Your task to perform on an android device: Go to Android settings Image 0: 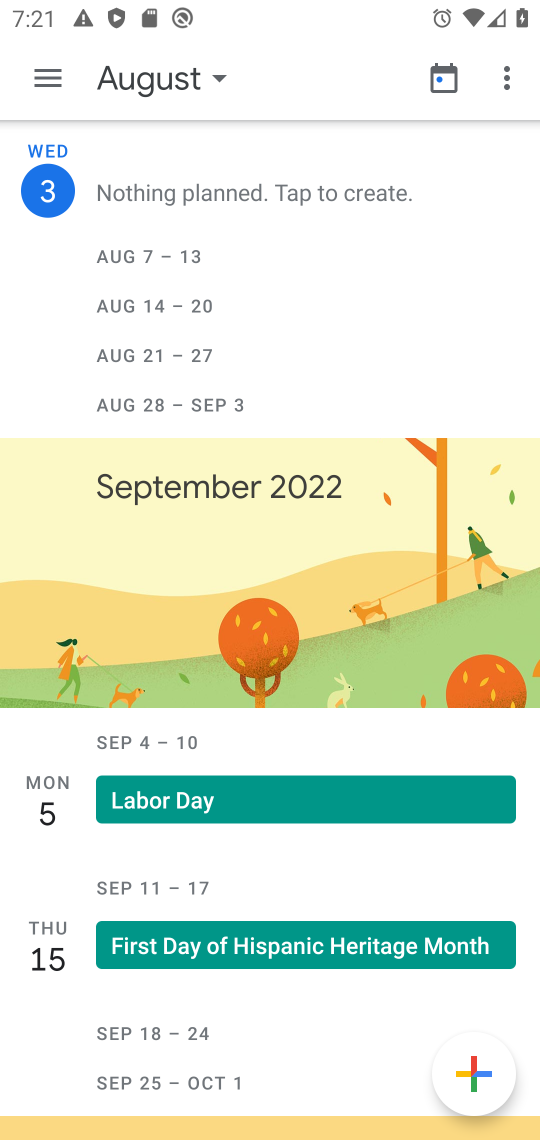
Step 0: press home button
Your task to perform on an android device: Go to Android settings Image 1: 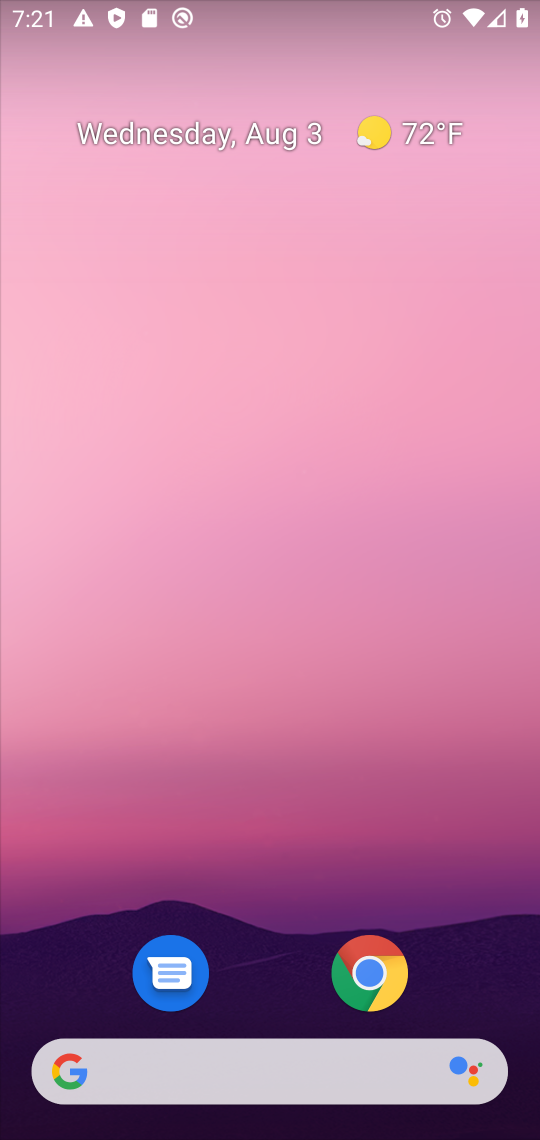
Step 1: drag from (221, 872) to (178, 337)
Your task to perform on an android device: Go to Android settings Image 2: 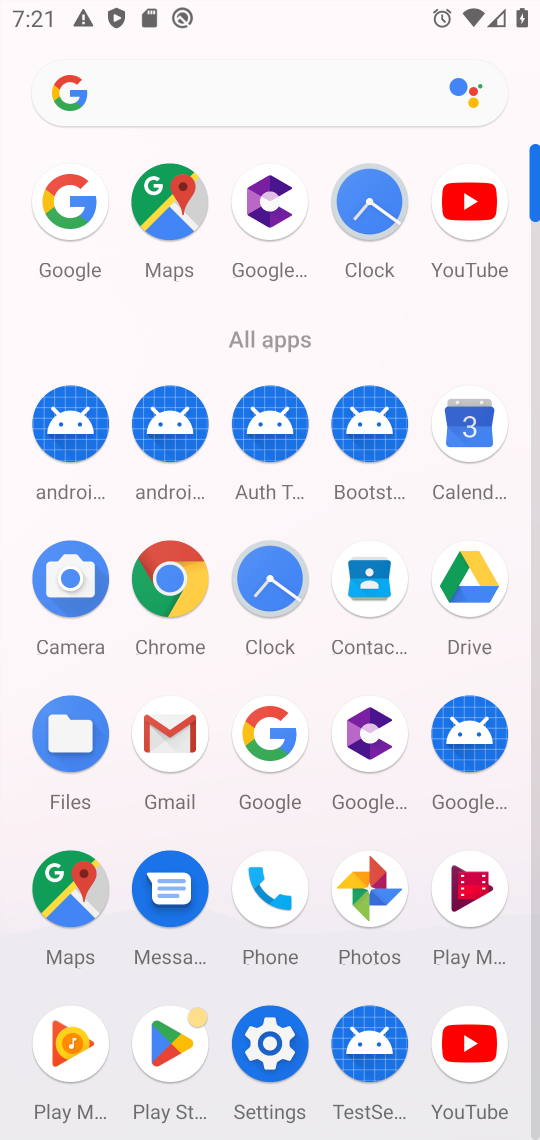
Step 2: click (262, 1051)
Your task to perform on an android device: Go to Android settings Image 3: 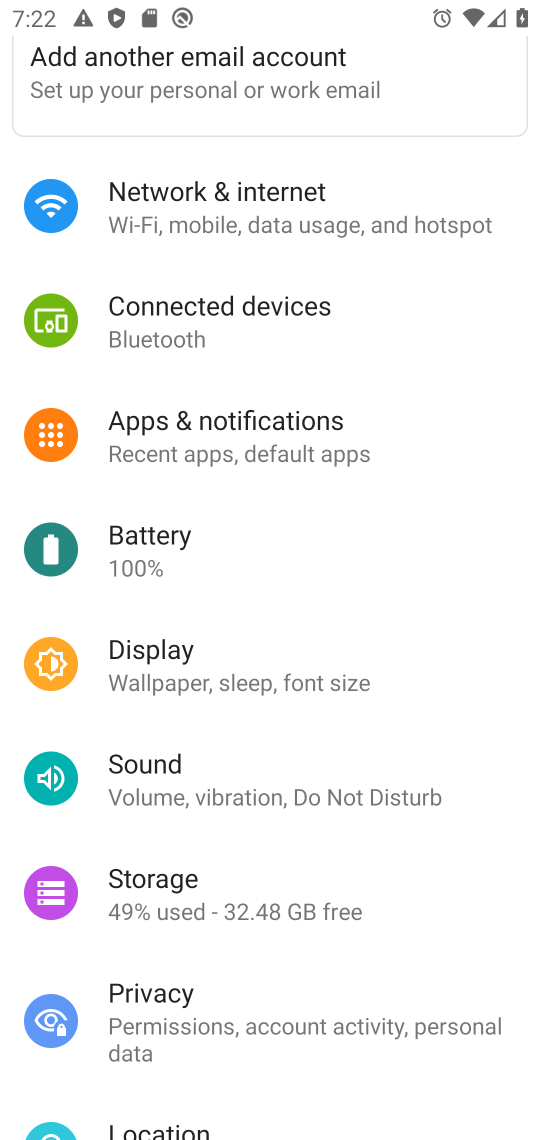
Step 3: drag from (207, 811) to (181, 407)
Your task to perform on an android device: Go to Android settings Image 4: 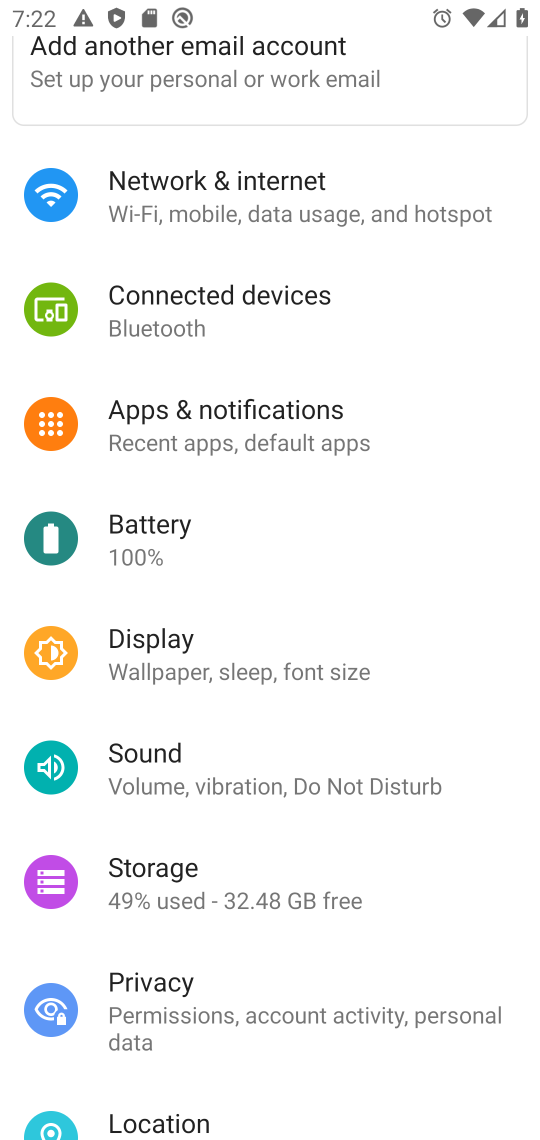
Step 4: drag from (228, 1011) to (199, 578)
Your task to perform on an android device: Go to Android settings Image 5: 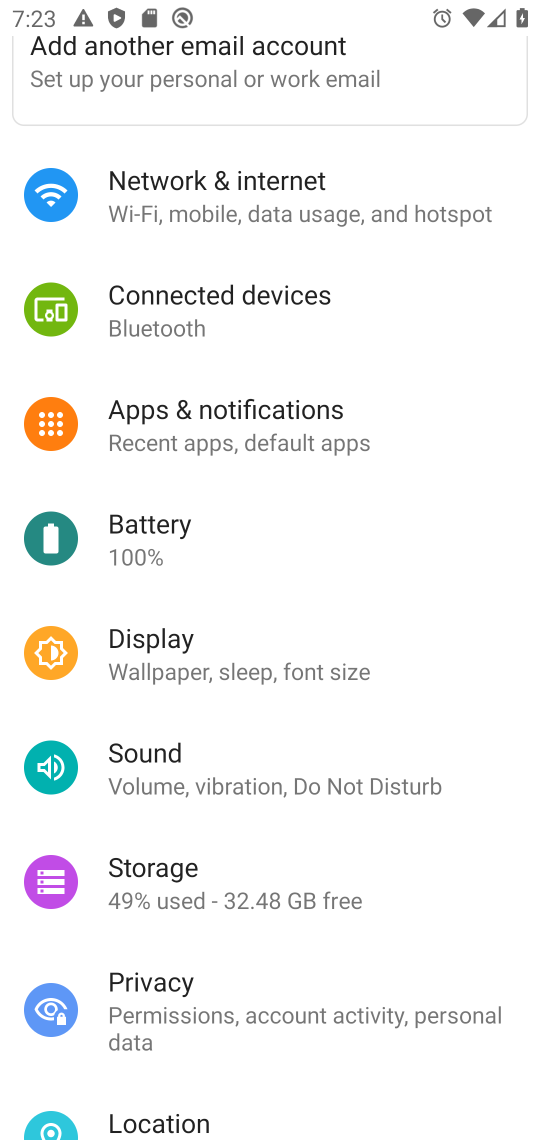
Step 5: drag from (200, 930) to (168, 184)
Your task to perform on an android device: Go to Android settings Image 6: 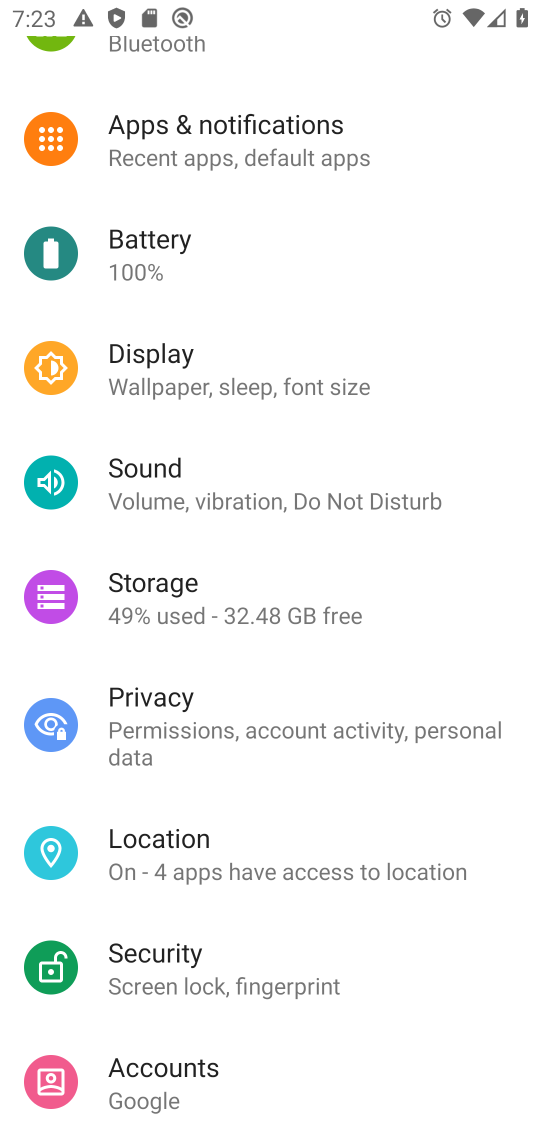
Step 6: drag from (170, 300) to (84, 2)
Your task to perform on an android device: Go to Android settings Image 7: 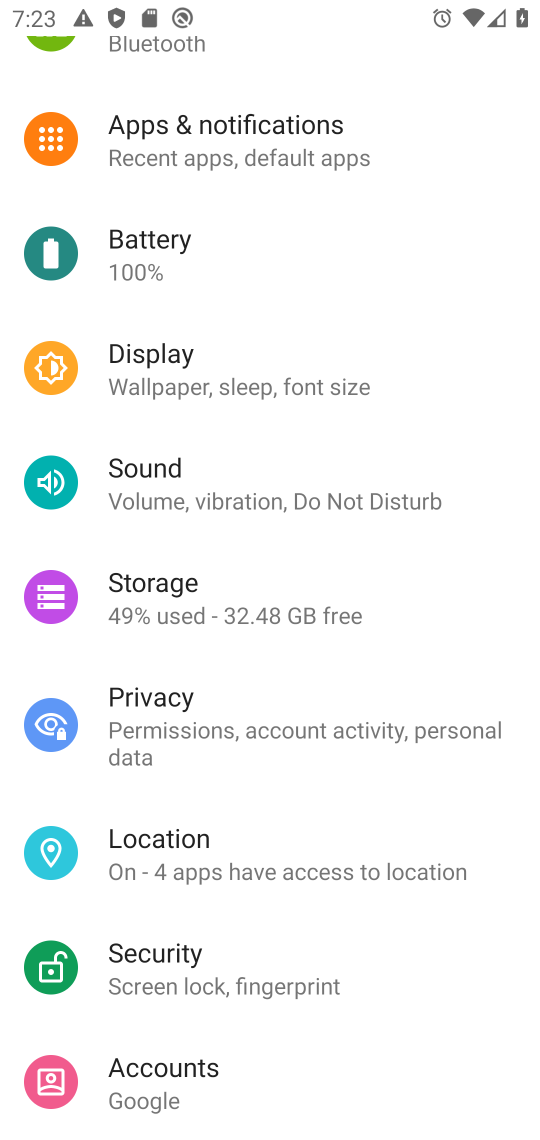
Step 7: drag from (223, 952) to (219, 56)
Your task to perform on an android device: Go to Android settings Image 8: 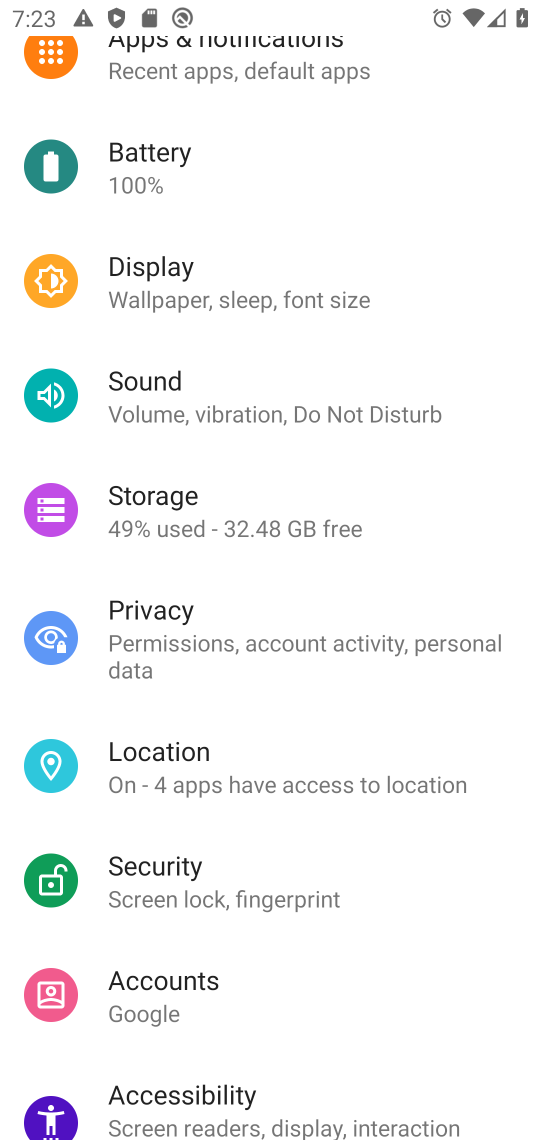
Step 8: drag from (238, 957) to (202, 509)
Your task to perform on an android device: Go to Android settings Image 9: 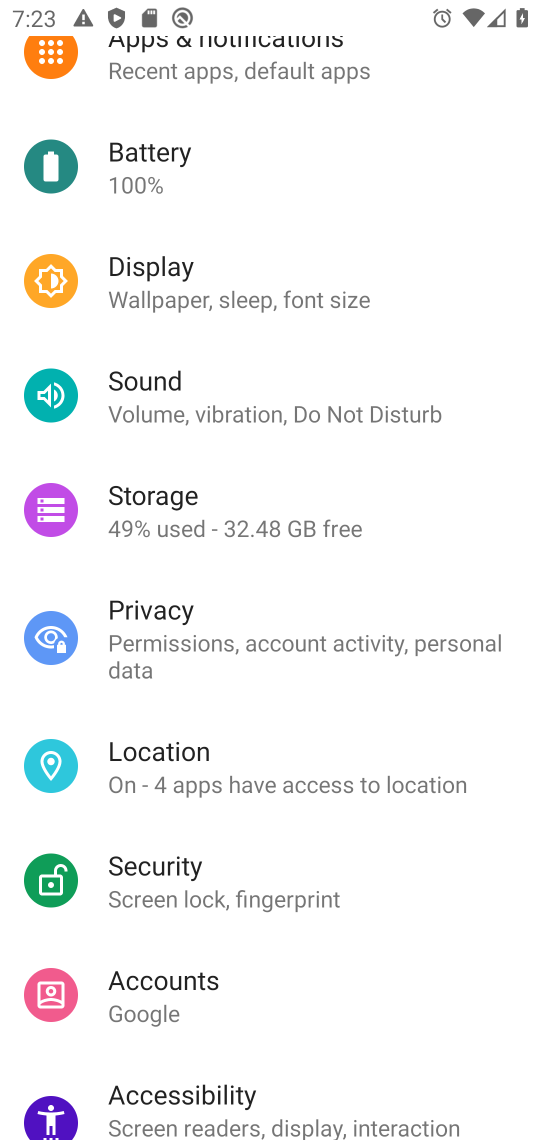
Step 9: click (137, 334)
Your task to perform on an android device: Go to Android settings Image 10: 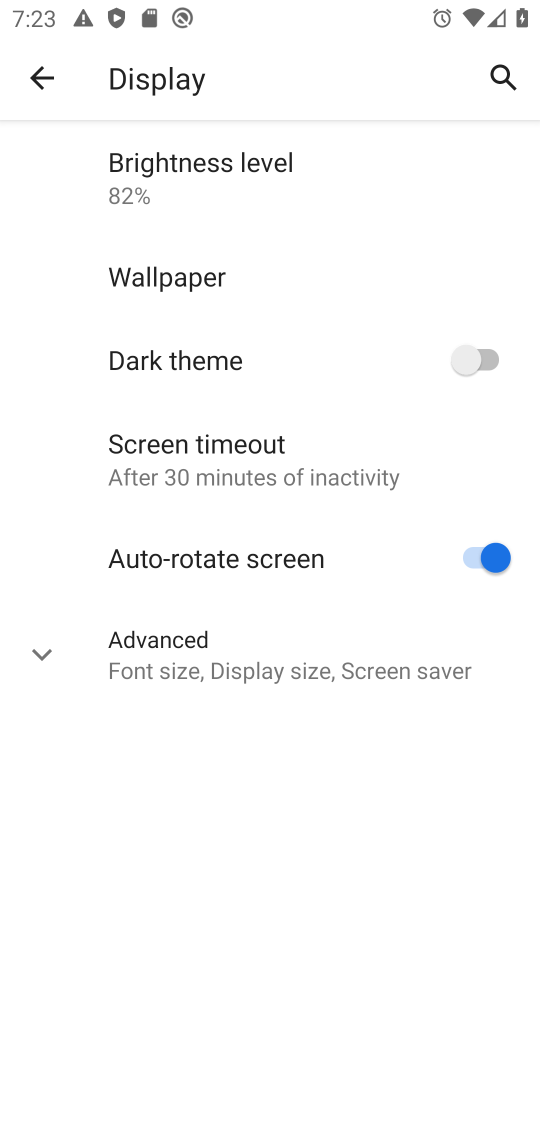
Step 10: click (40, 78)
Your task to perform on an android device: Go to Android settings Image 11: 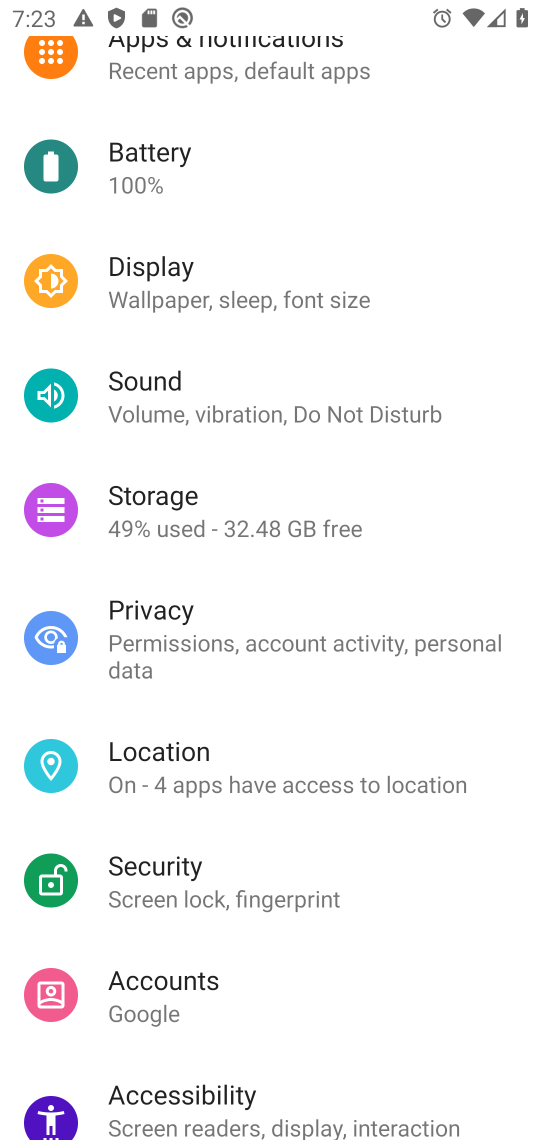
Step 11: drag from (233, 993) to (187, 263)
Your task to perform on an android device: Go to Android settings Image 12: 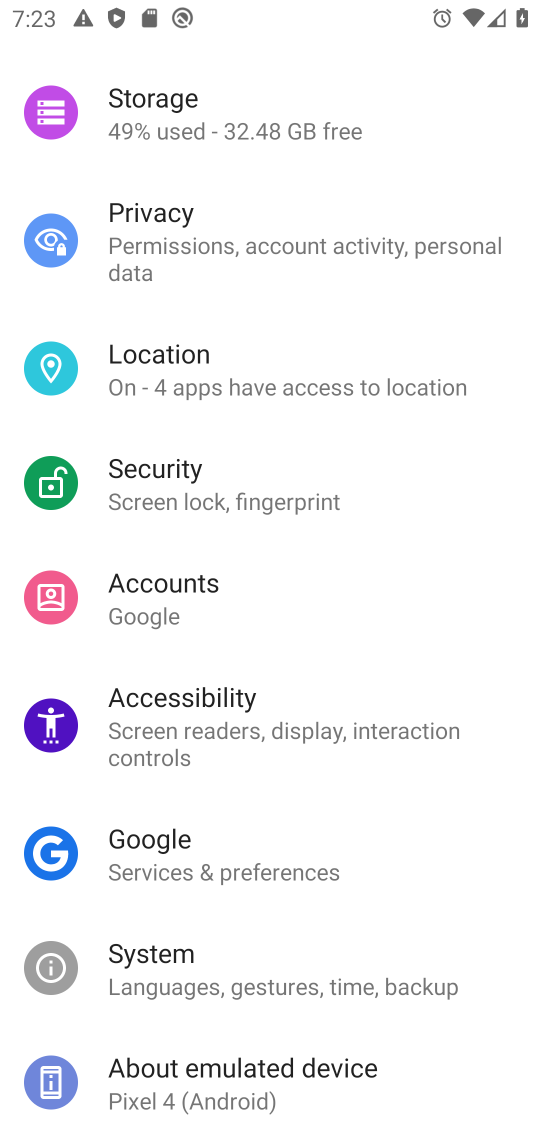
Step 12: click (214, 1086)
Your task to perform on an android device: Go to Android settings Image 13: 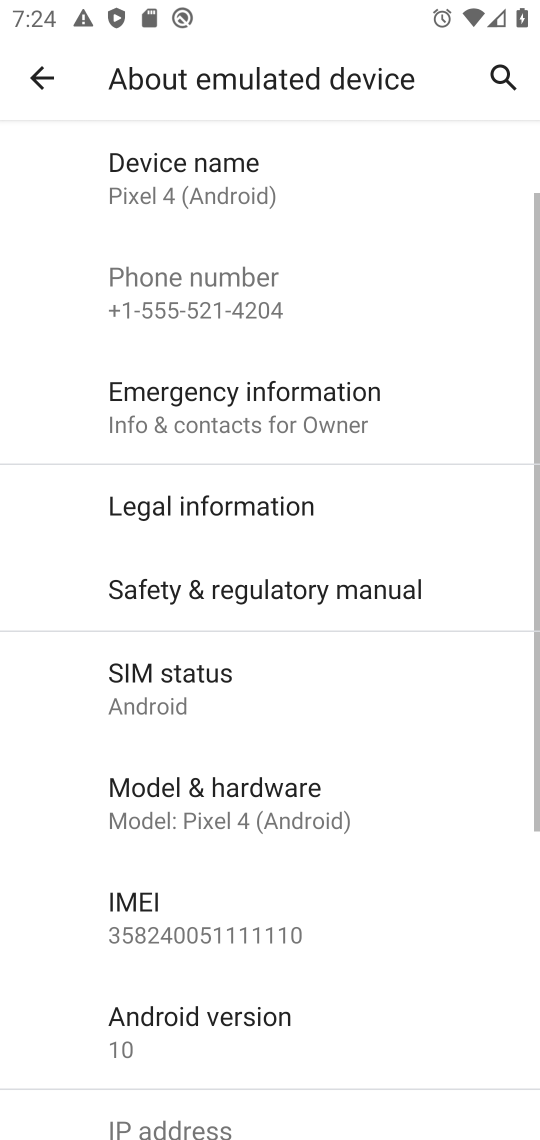
Step 13: click (203, 1057)
Your task to perform on an android device: Go to Android settings Image 14: 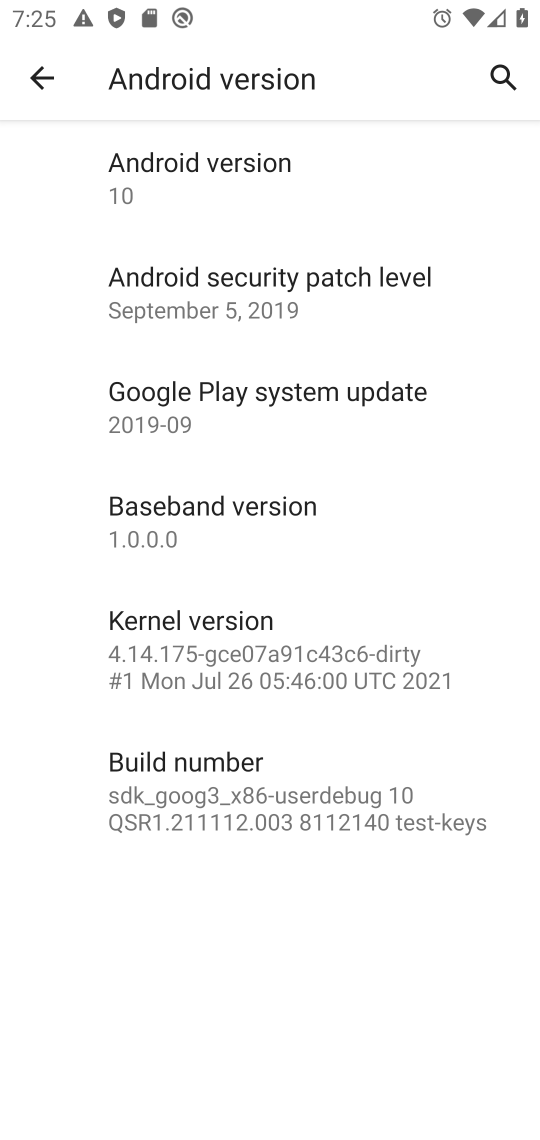
Step 14: task complete